Your task to perform on an android device: delete location history Image 0: 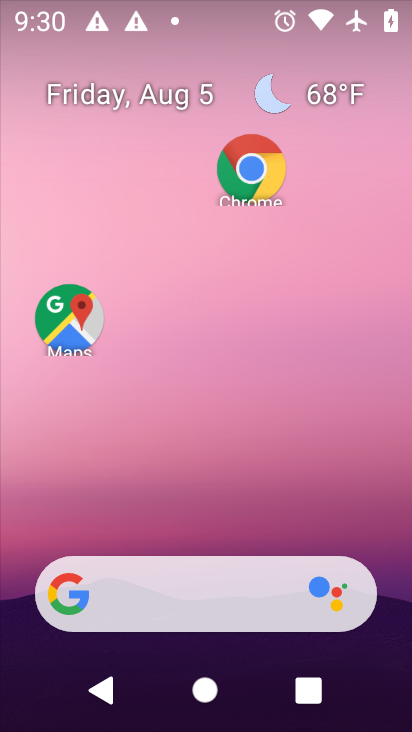
Step 0: click (249, 184)
Your task to perform on an android device: delete location history Image 1: 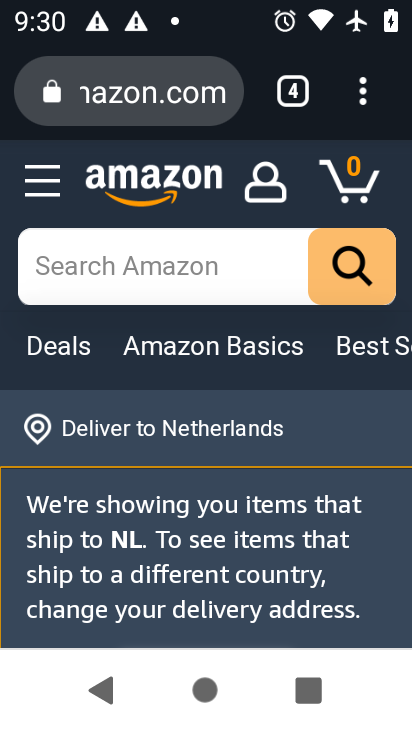
Step 1: click (366, 102)
Your task to perform on an android device: delete location history Image 2: 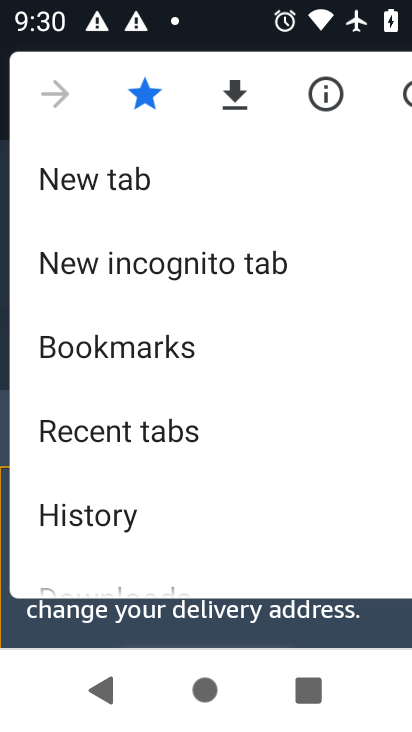
Step 2: drag from (166, 508) to (189, 260)
Your task to perform on an android device: delete location history Image 3: 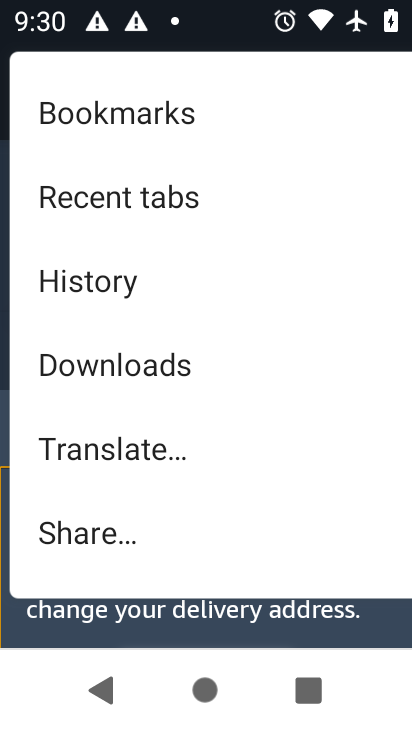
Step 3: click (163, 277)
Your task to perform on an android device: delete location history Image 4: 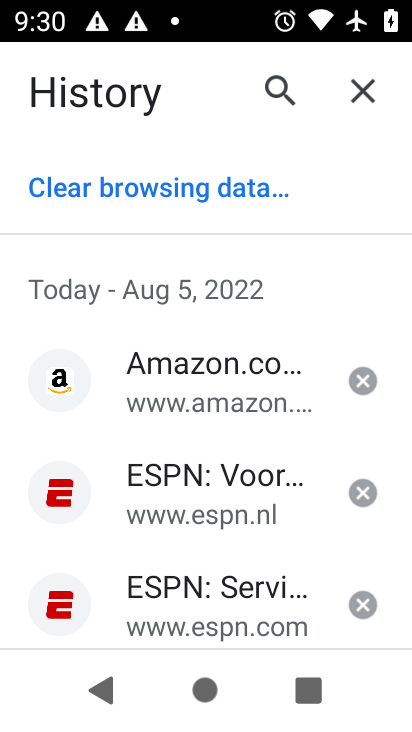
Step 4: click (208, 194)
Your task to perform on an android device: delete location history Image 5: 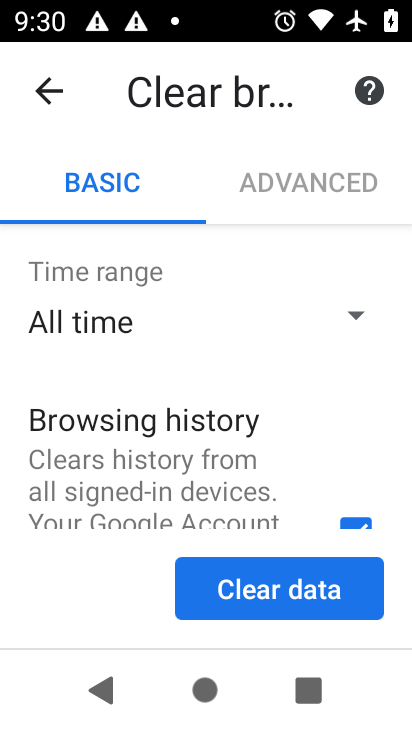
Step 5: drag from (224, 482) to (227, 176)
Your task to perform on an android device: delete location history Image 6: 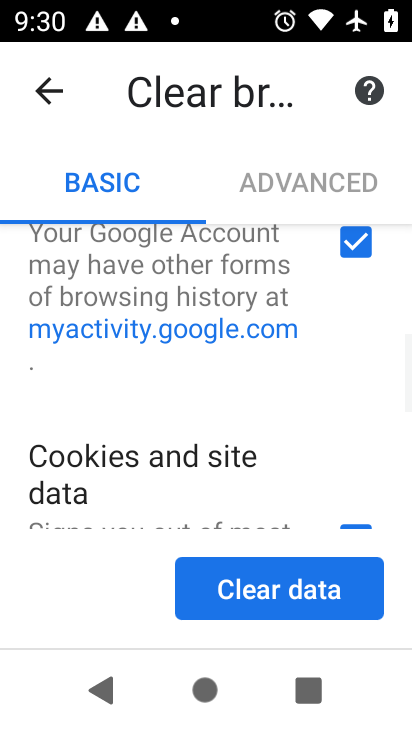
Step 6: drag from (315, 475) to (309, 155)
Your task to perform on an android device: delete location history Image 7: 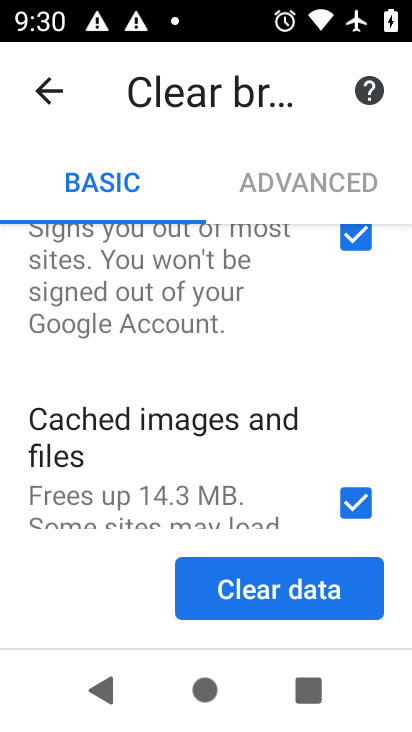
Step 7: click (305, 575)
Your task to perform on an android device: delete location history Image 8: 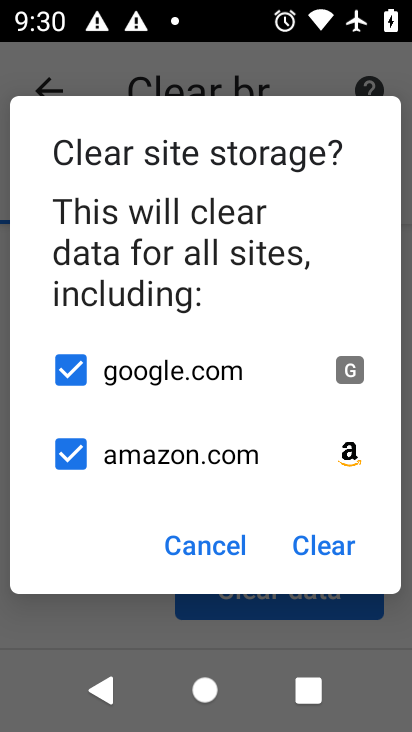
Step 8: click (319, 544)
Your task to perform on an android device: delete location history Image 9: 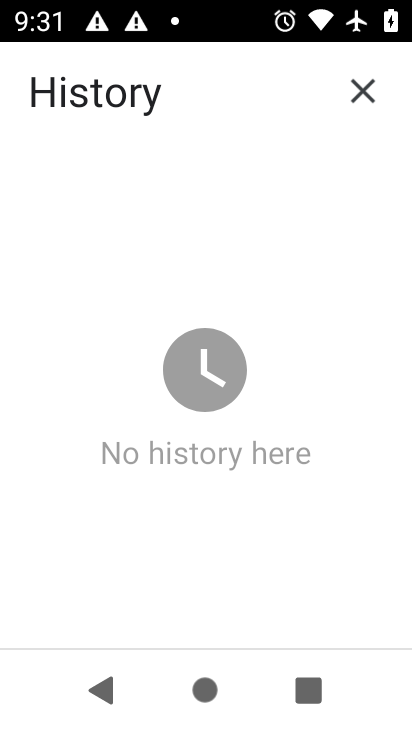
Step 9: task complete